Your task to perform on an android device: set the stopwatch Image 0: 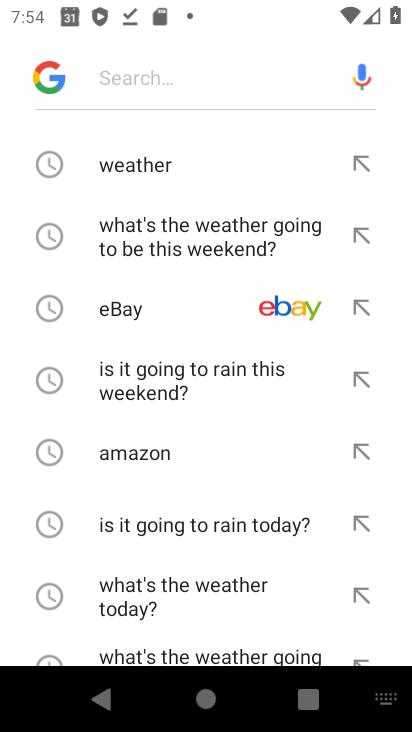
Step 0: press home button
Your task to perform on an android device: set the stopwatch Image 1: 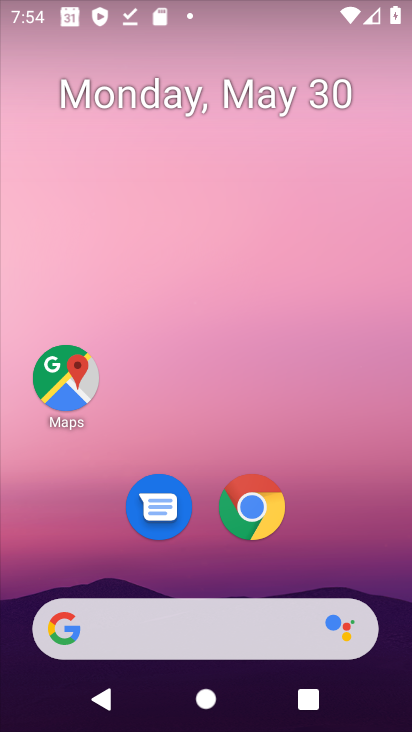
Step 1: drag from (340, 509) to (347, 142)
Your task to perform on an android device: set the stopwatch Image 2: 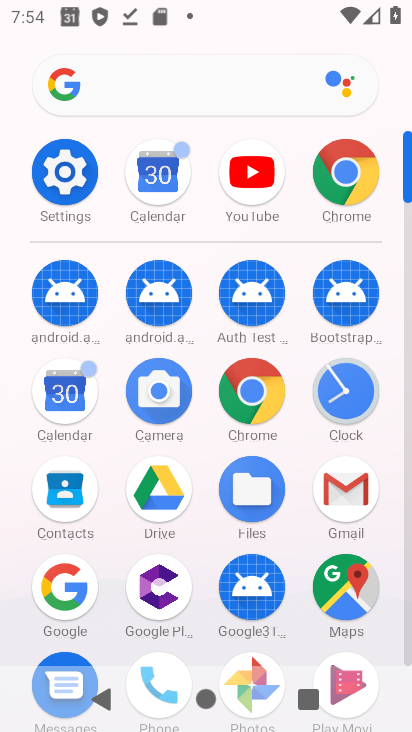
Step 2: click (359, 388)
Your task to perform on an android device: set the stopwatch Image 3: 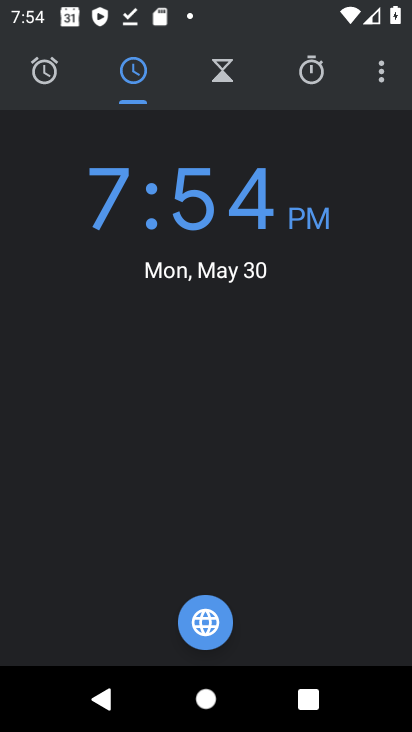
Step 3: click (322, 95)
Your task to perform on an android device: set the stopwatch Image 4: 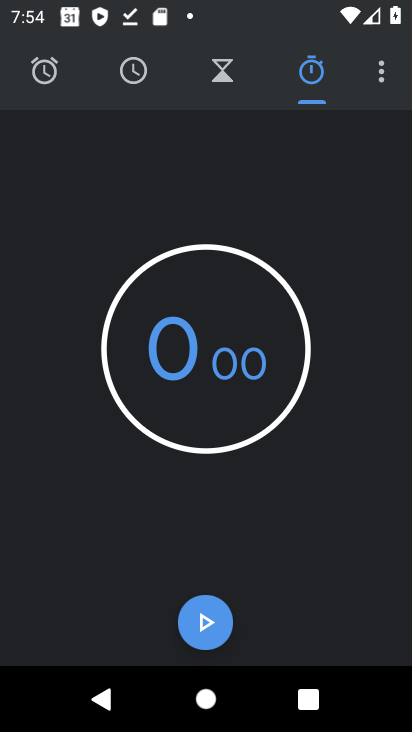
Step 4: click (211, 627)
Your task to perform on an android device: set the stopwatch Image 5: 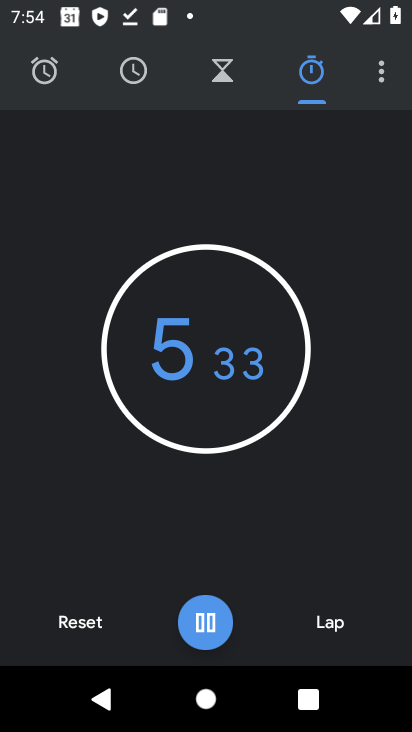
Step 5: click (208, 626)
Your task to perform on an android device: set the stopwatch Image 6: 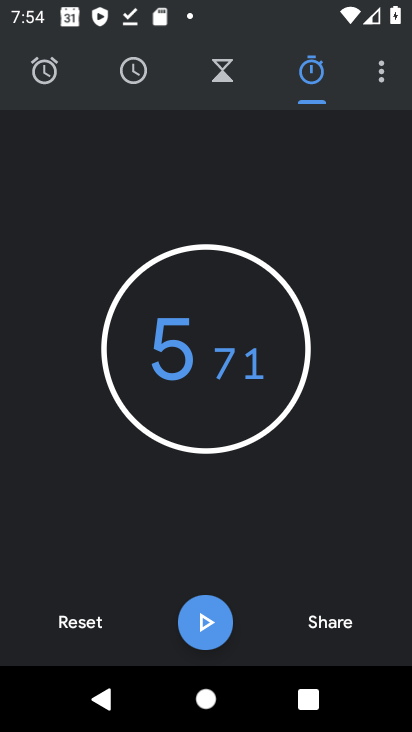
Step 6: task complete